Your task to perform on an android device: toggle improve location accuracy Image 0: 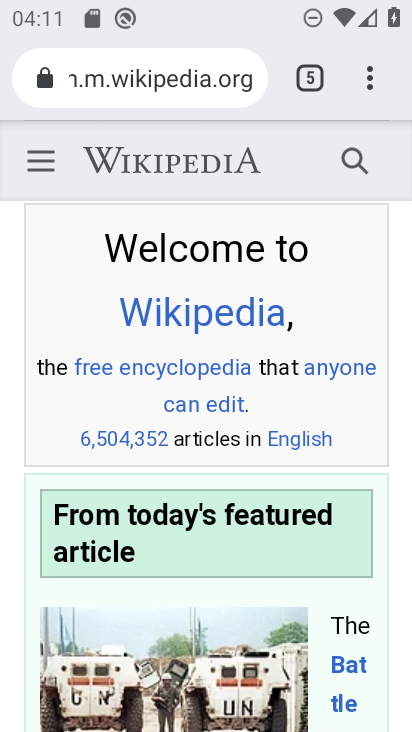
Step 0: press home button
Your task to perform on an android device: toggle improve location accuracy Image 1: 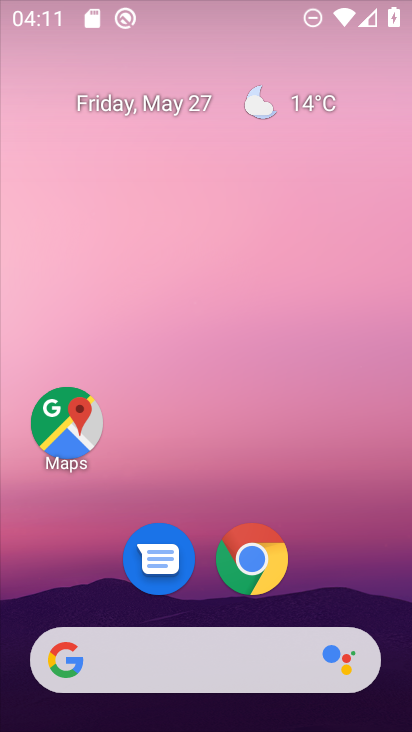
Step 1: drag from (315, 665) to (317, 144)
Your task to perform on an android device: toggle improve location accuracy Image 2: 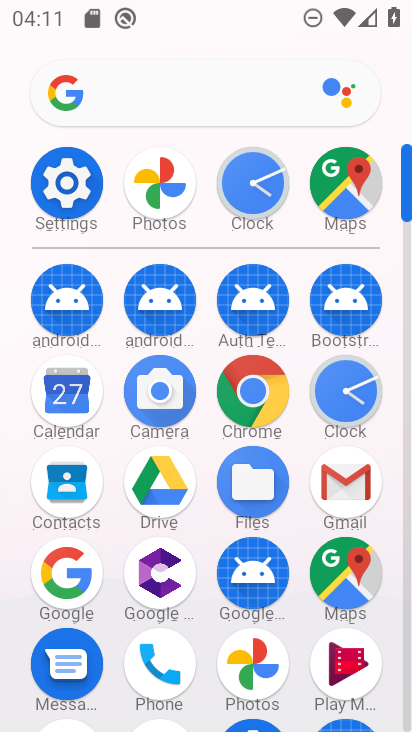
Step 2: click (88, 188)
Your task to perform on an android device: toggle improve location accuracy Image 3: 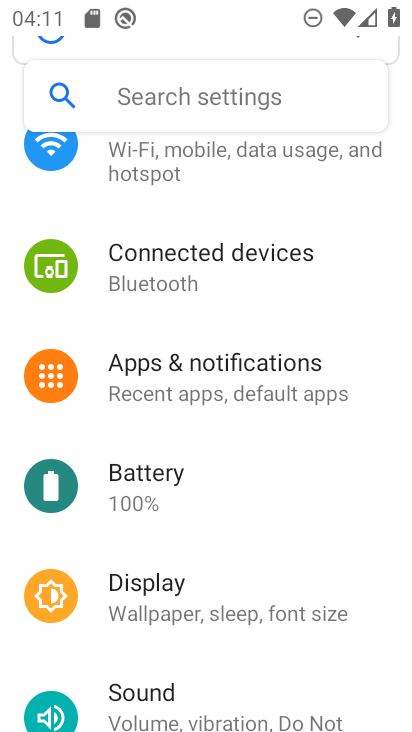
Step 3: drag from (242, 637) to (238, 184)
Your task to perform on an android device: toggle improve location accuracy Image 4: 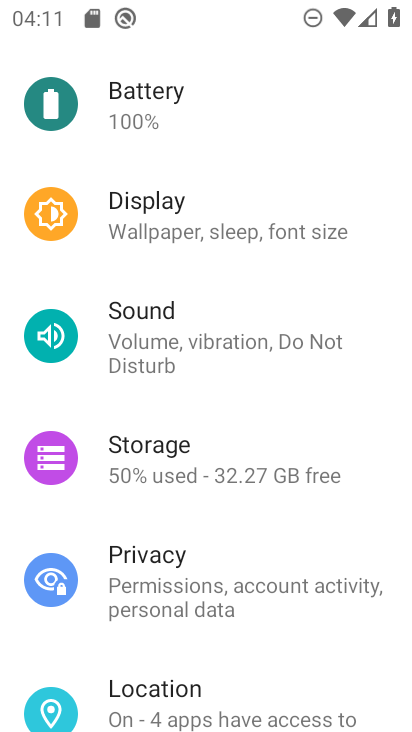
Step 4: click (240, 703)
Your task to perform on an android device: toggle improve location accuracy Image 5: 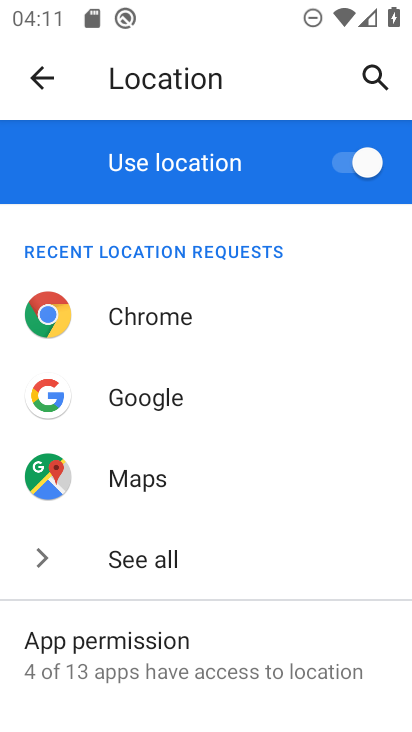
Step 5: drag from (255, 689) to (176, 172)
Your task to perform on an android device: toggle improve location accuracy Image 6: 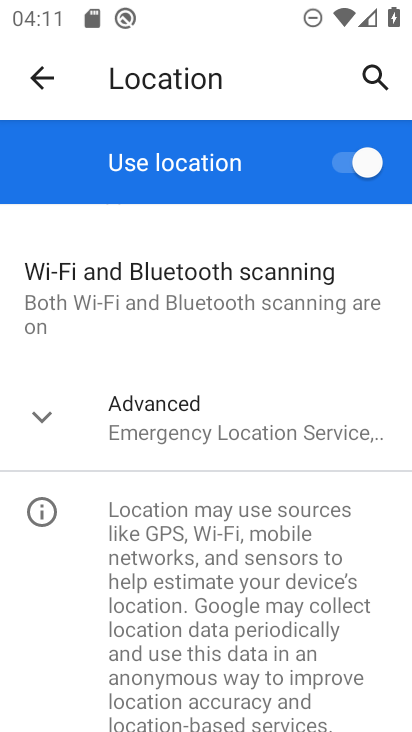
Step 6: click (200, 434)
Your task to perform on an android device: toggle improve location accuracy Image 7: 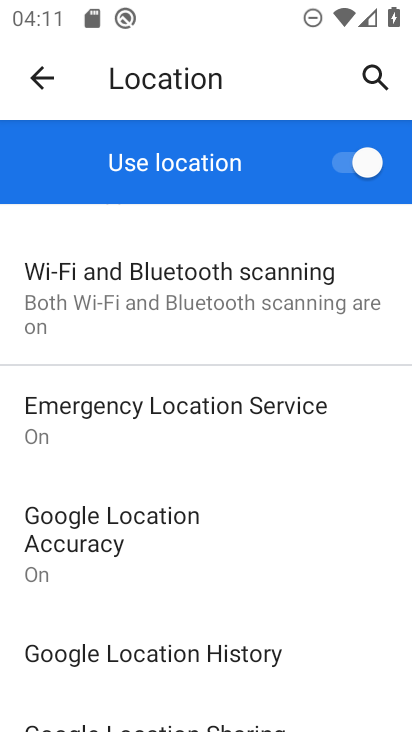
Step 7: click (153, 551)
Your task to perform on an android device: toggle improve location accuracy Image 8: 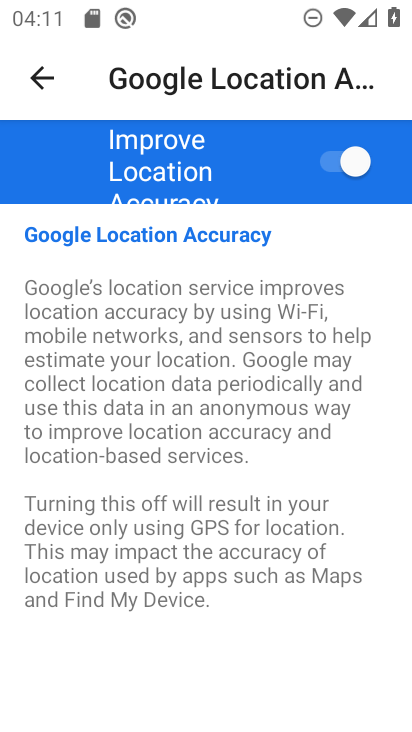
Step 8: click (337, 165)
Your task to perform on an android device: toggle improve location accuracy Image 9: 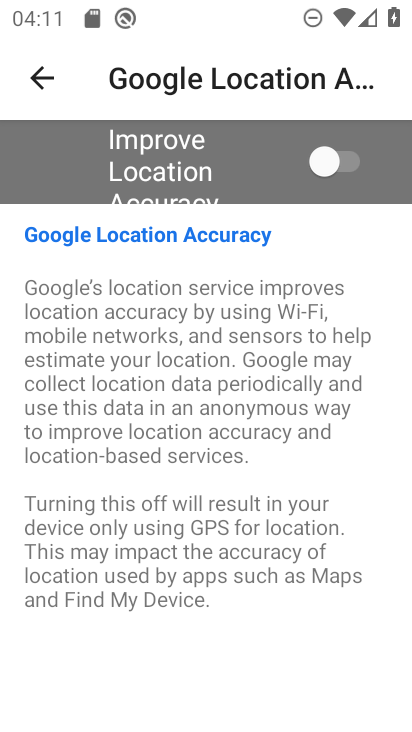
Step 9: task complete